Your task to perform on an android device: What is the recent news? Image 0: 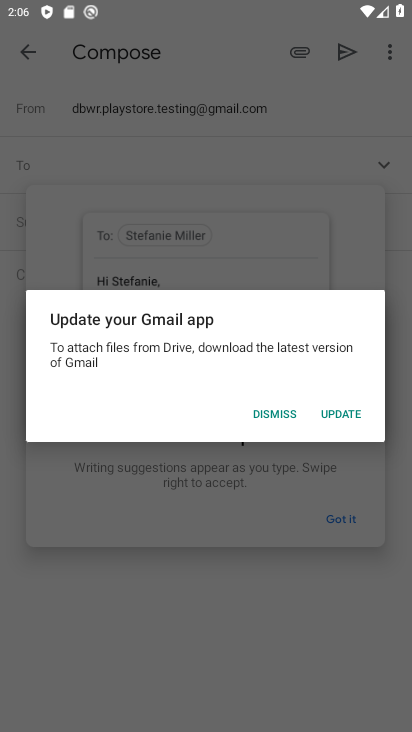
Step 0: press home button
Your task to perform on an android device: What is the recent news? Image 1: 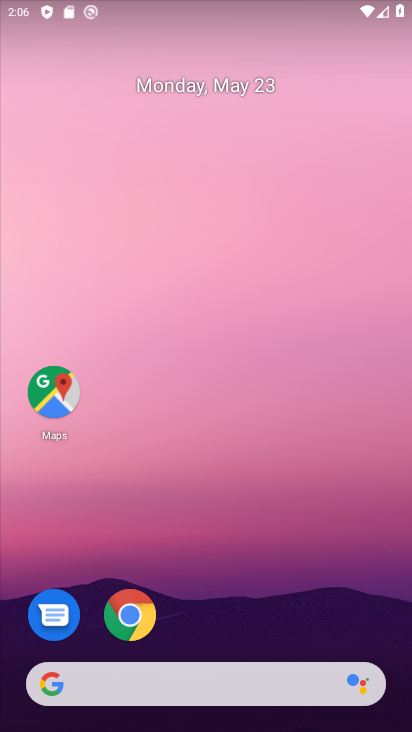
Step 1: click (110, 690)
Your task to perform on an android device: What is the recent news? Image 2: 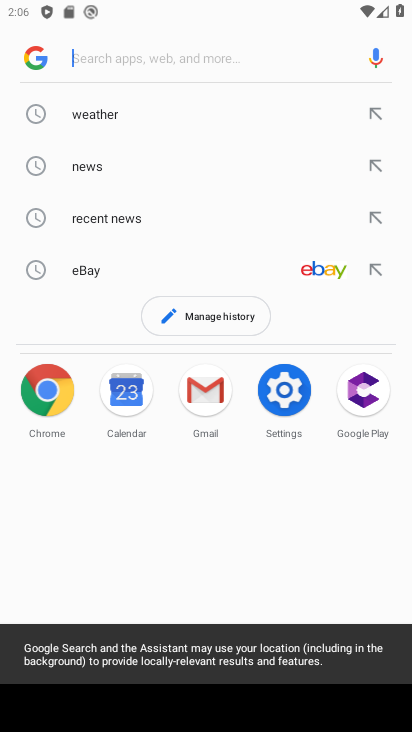
Step 2: click (93, 223)
Your task to perform on an android device: What is the recent news? Image 3: 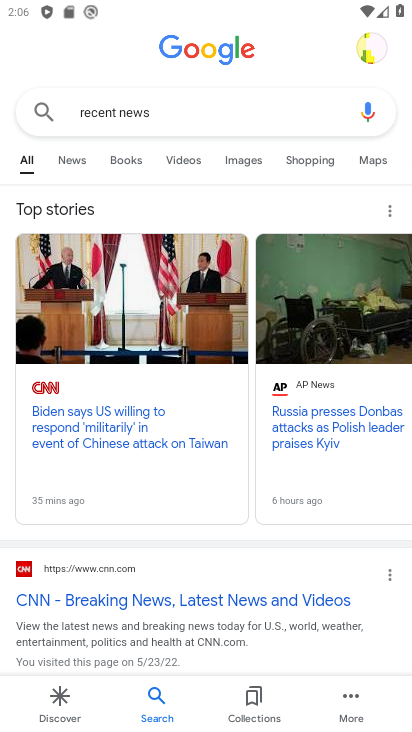
Step 3: drag from (131, 601) to (136, 476)
Your task to perform on an android device: What is the recent news? Image 4: 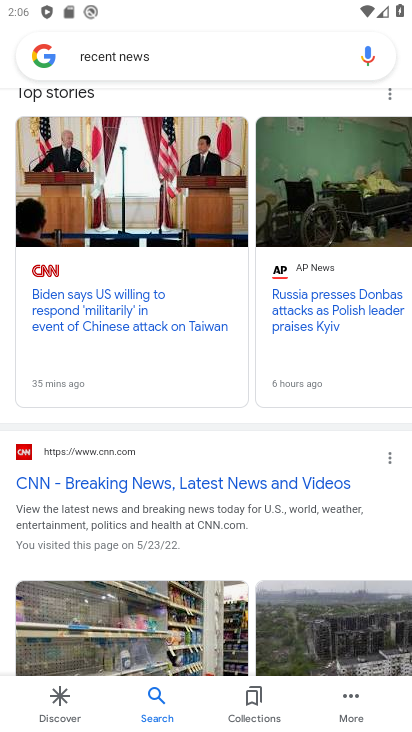
Step 4: click (99, 204)
Your task to perform on an android device: What is the recent news? Image 5: 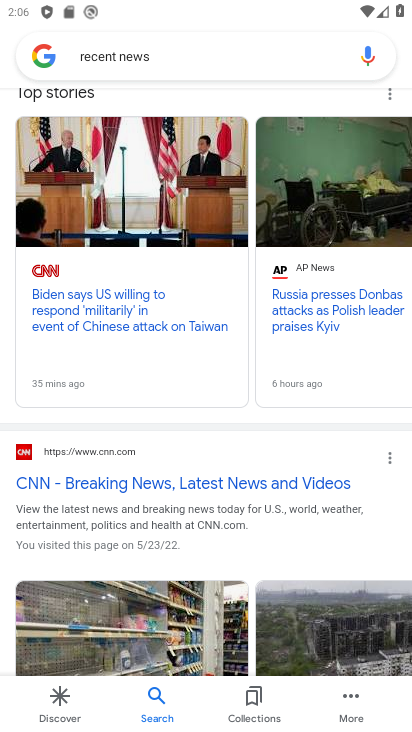
Step 5: click (107, 281)
Your task to perform on an android device: What is the recent news? Image 6: 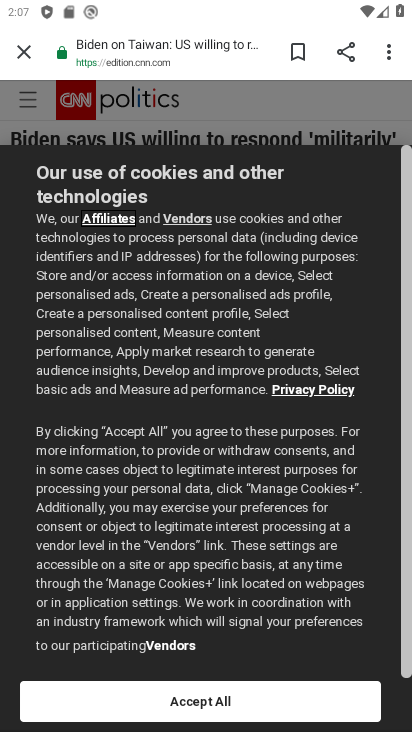
Step 6: task complete